Your task to perform on an android device: delete browsing data in the chrome app Image 0: 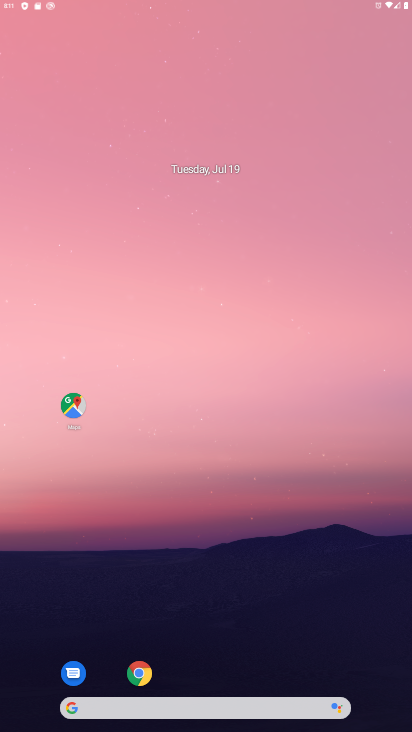
Step 0: drag from (219, 683) to (183, 475)
Your task to perform on an android device: delete browsing data in the chrome app Image 1: 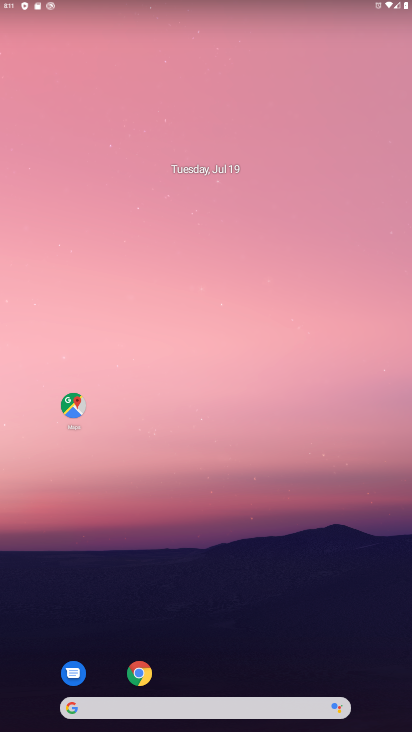
Step 1: drag from (213, 489) to (212, 43)
Your task to perform on an android device: delete browsing data in the chrome app Image 2: 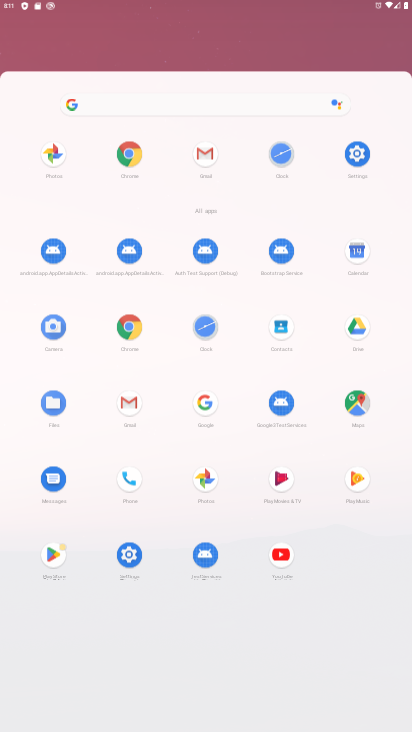
Step 2: drag from (256, 490) to (229, 86)
Your task to perform on an android device: delete browsing data in the chrome app Image 3: 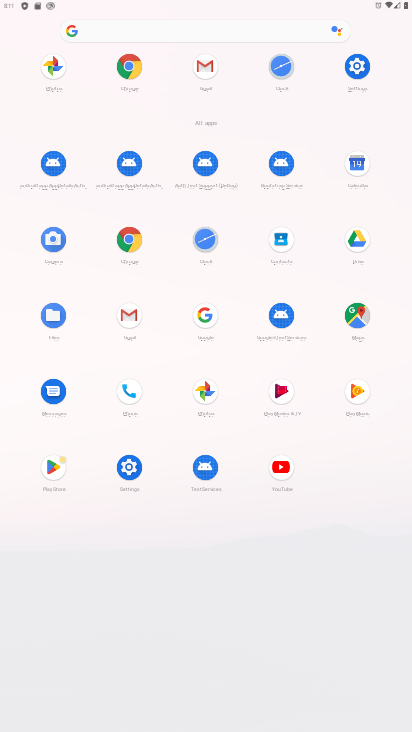
Step 3: drag from (264, 498) to (261, 166)
Your task to perform on an android device: delete browsing data in the chrome app Image 4: 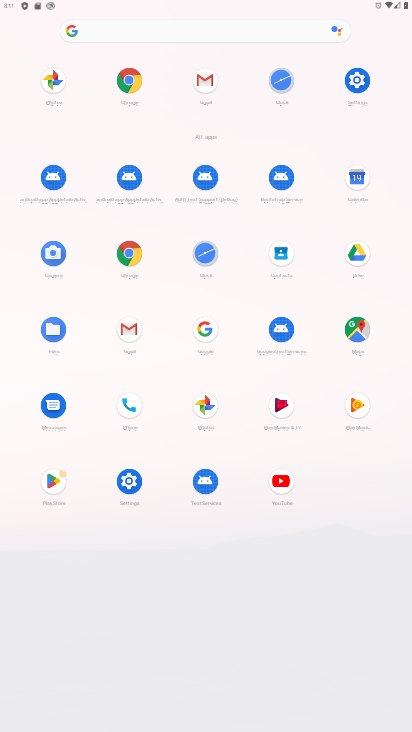
Step 4: click (127, 261)
Your task to perform on an android device: delete browsing data in the chrome app Image 5: 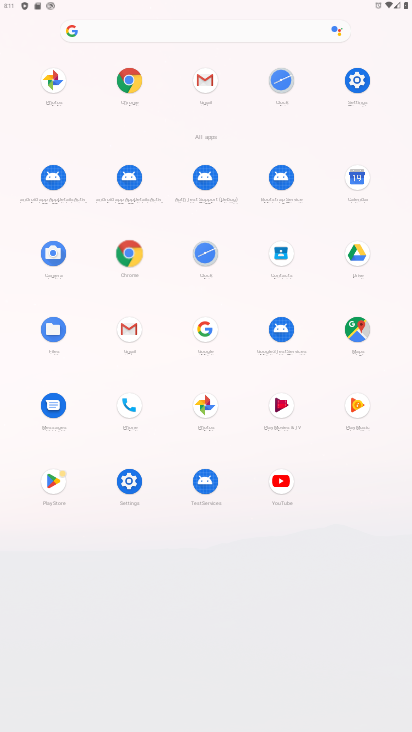
Step 5: click (127, 261)
Your task to perform on an android device: delete browsing data in the chrome app Image 6: 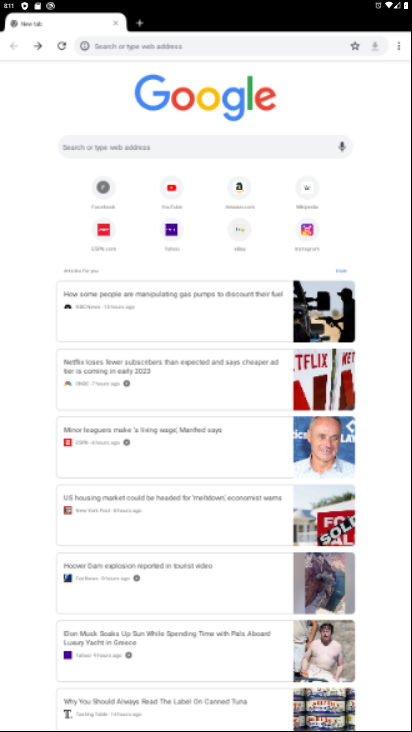
Step 6: click (127, 261)
Your task to perform on an android device: delete browsing data in the chrome app Image 7: 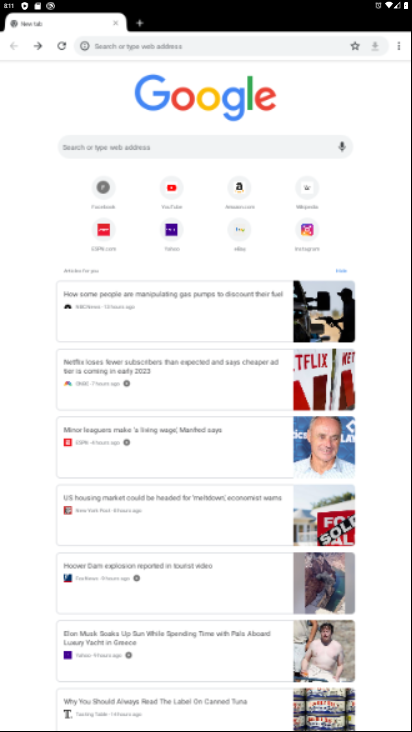
Step 7: click (128, 263)
Your task to perform on an android device: delete browsing data in the chrome app Image 8: 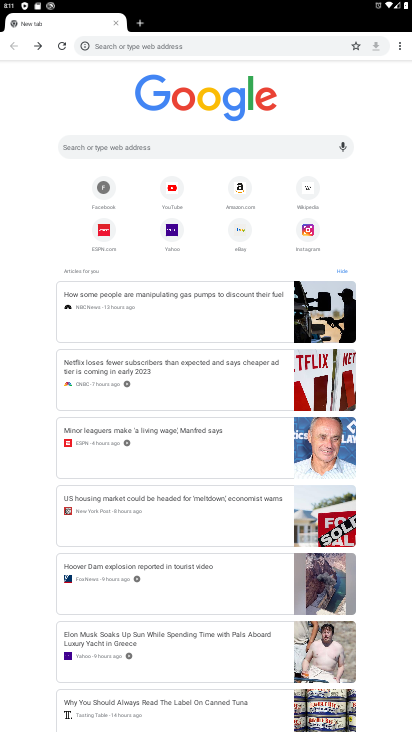
Step 8: drag from (400, 47) to (292, 245)
Your task to perform on an android device: delete browsing data in the chrome app Image 9: 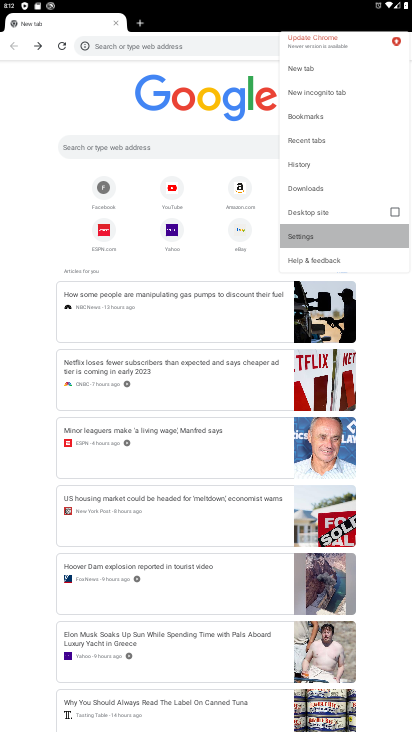
Step 9: click (292, 241)
Your task to perform on an android device: delete browsing data in the chrome app Image 10: 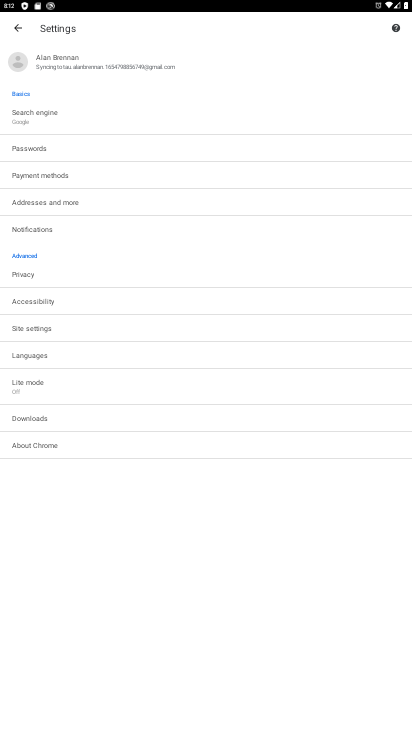
Step 10: click (25, 324)
Your task to perform on an android device: delete browsing data in the chrome app Image 11: 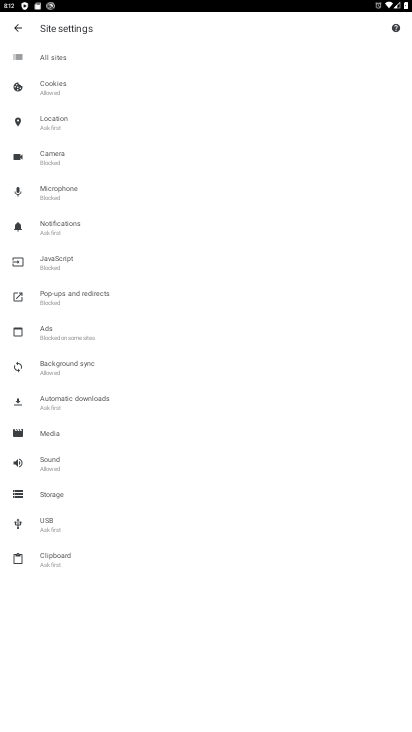
Step 11: click (13, 24)
Your task to perform on an android device: delete browsing data in the chrome app Image 12: 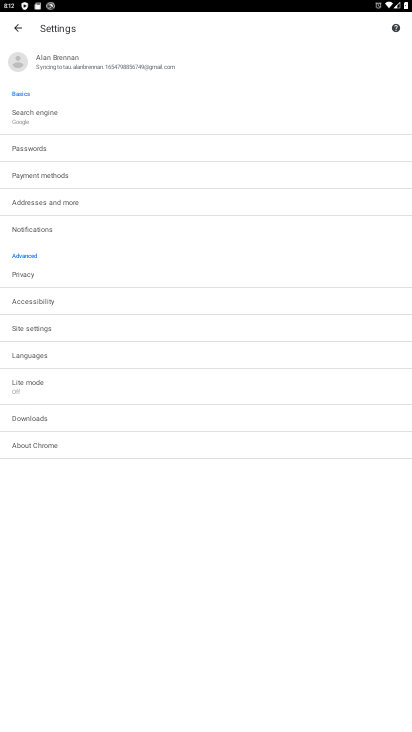
Step 12: click (17, 32)
Your task to perform on an android device: delete browsing data in the chrome app Image 13: 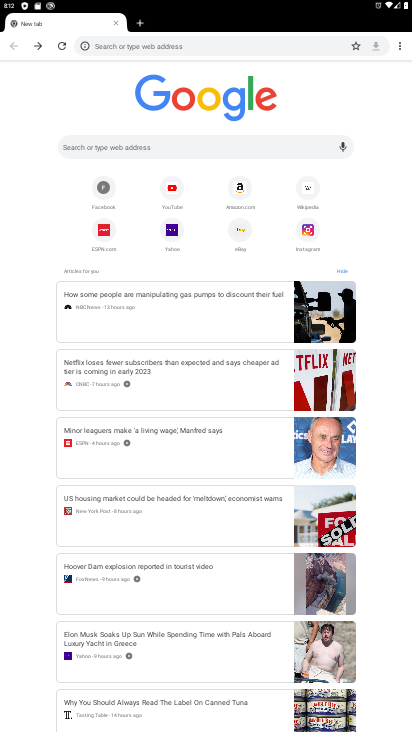
Step 13: click (401, 51)
Your task to perform on an android device: delete browsing data in the chrome app Image 14: 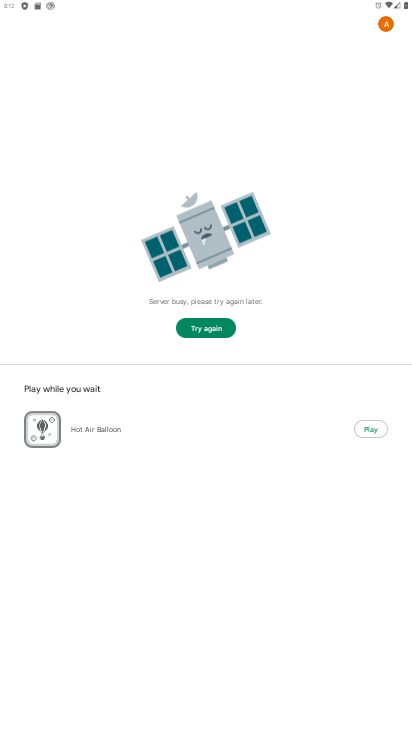
Step 14: press back button
Your task to perform on an android device: delete browsing data in the chrome app Image 15: 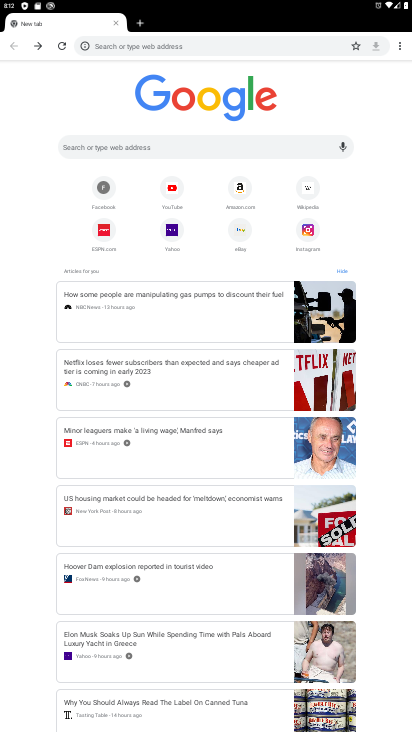
Step 15: drag from (397, 44) to (304, 169)
Your task to perform on an android device: delete browsing data in the chrome app Image 16: 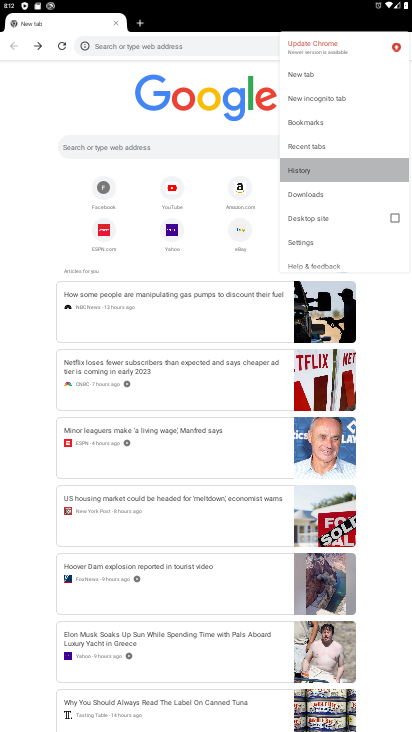
Step 16: click (304, 169)
Your task to perform on an android device: delete browsing data in the chrome app Image 17: 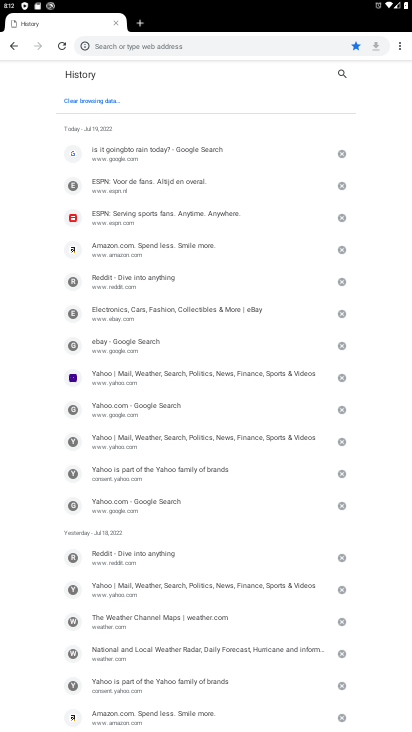
Step 17: click (349, 142)
Your task to perform on an android device: delete browsing data in the chrome app Image 18: 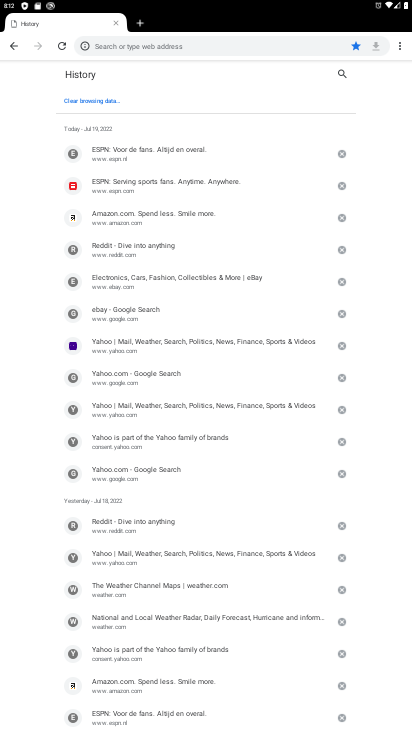
Step 18: click (344, 153)
Your task to perform on an android device: delete browsing data in the chrome app Image 19: 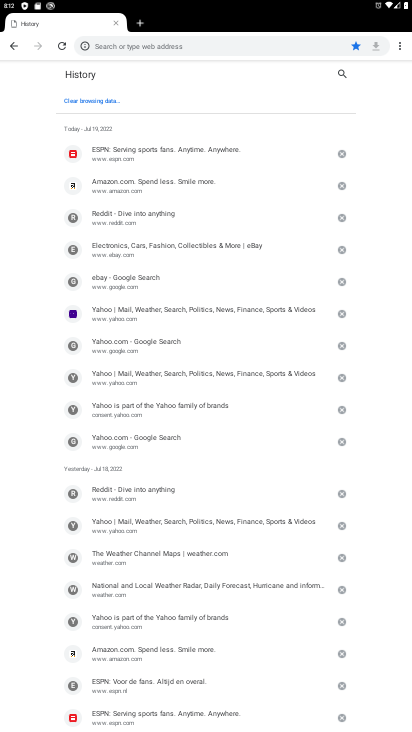
Step 19: click (116, 100)
Your task to perform on an android device: delete browsing data in the chrome app Image 20: 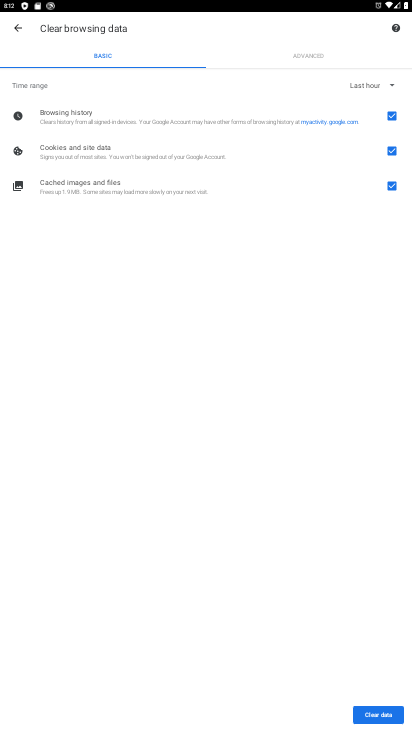
Step 20: click (372, 716)
Your task to perform on an android device: delete browsing data in the chrome app Image 21: 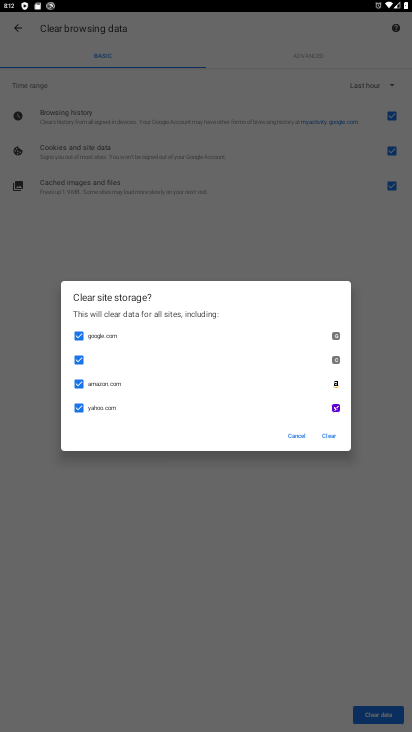
Step 21: click (321, 431)
Your task to perform on an android device: delete browsing data in the chrome app Image 22: 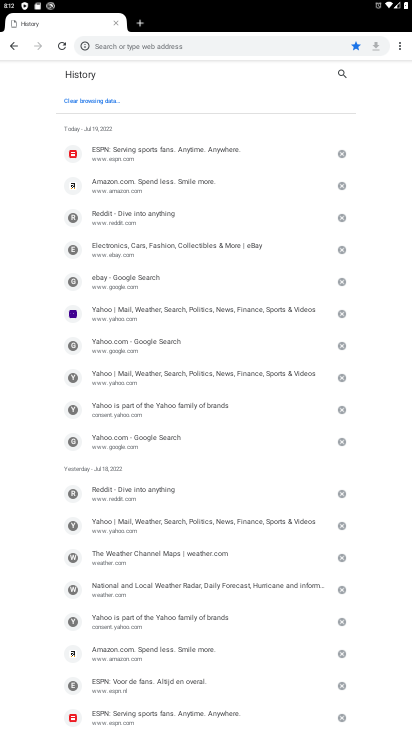
Step 22: task complete